Your task to perform on an android device: turn off notifications in google photos Image 0: 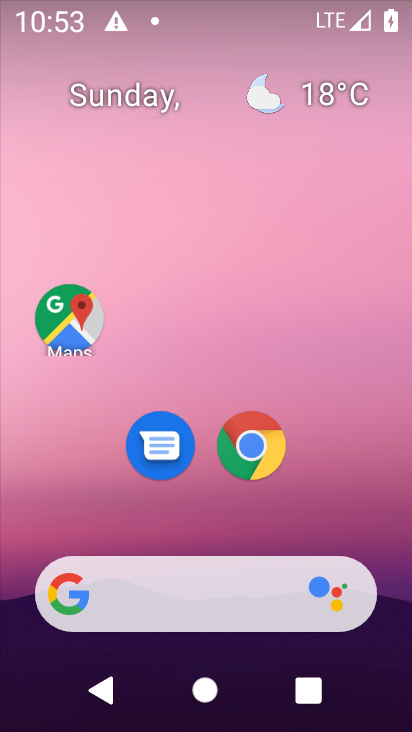
Step 0: drag from (240, 576) to (127, 467)
Your task to perform on an android device: turn off notifications in google photos Image 1: 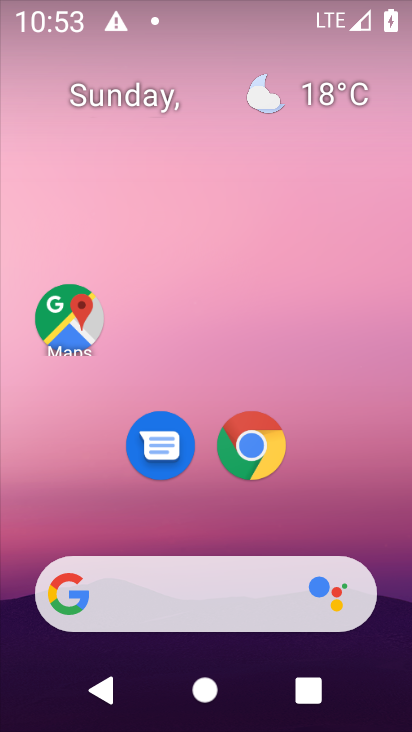
Step 1: drag from (239, 70) to (0, 377)
Your task to perform on an android device: turn off notifications in google photos Image 2: 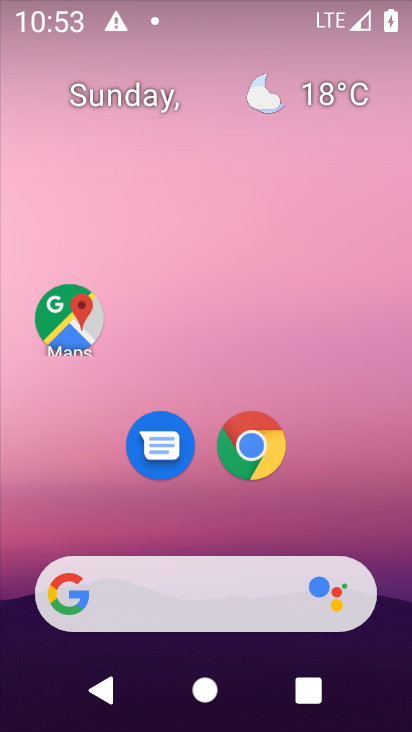
Step 2: drag from (215, 596) to (140, 32)
Your task to perform on an android device: turn off notifications in google photos Image 3: 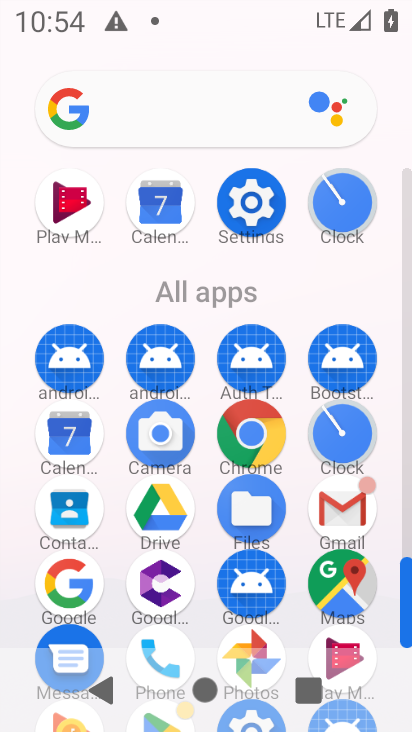
Step 3: click (254, 631)
Your task to perform on an android device: turn off notifications in google photos Image 4: 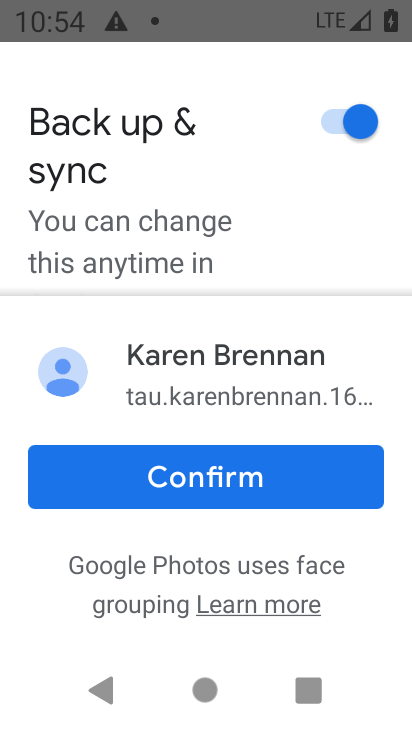
Step 4: click (201, 477)
Your task to perform on an android device: turn off notifications in google photos Image 5: 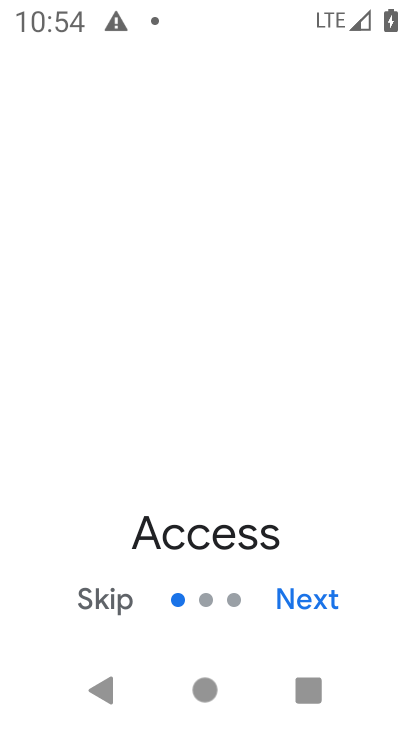
Step 5: click (88, 598)
Your task to perform on an android device: turn off notifications in google photos Image 6: 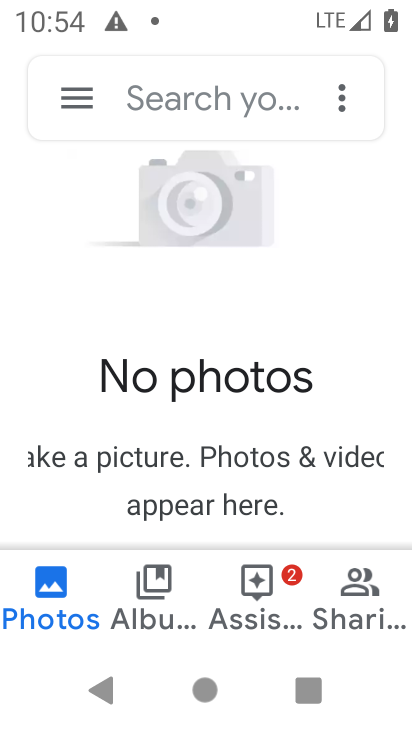
Step 6: click (88, 598)
Your task to perform on an android device: turn off notifications in google photos Image 7: 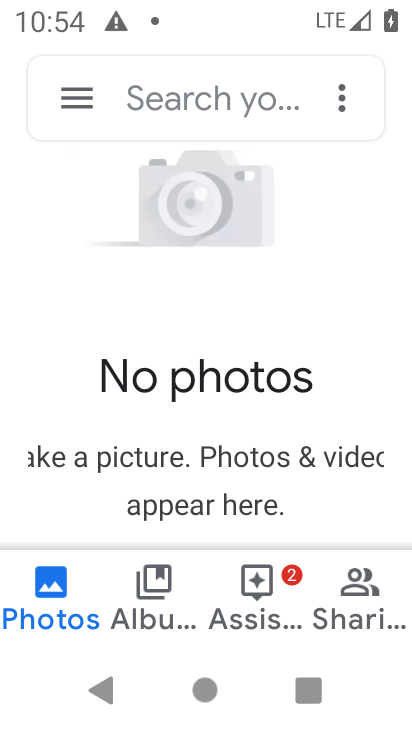
Step 7: click (89, 104)
Your task to perform on an android device: turn off notifications in google photos Image 8: 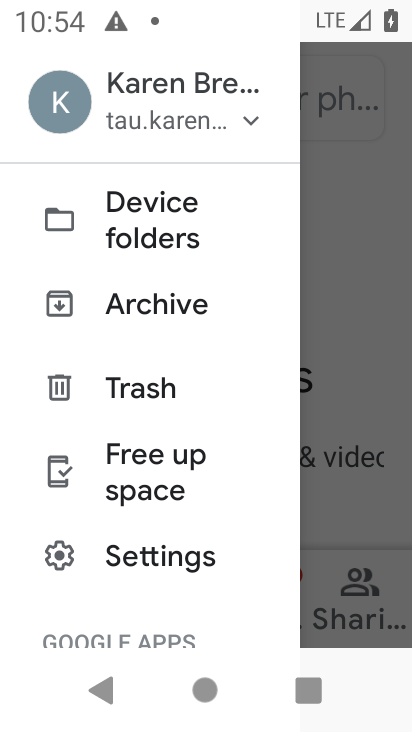
Step 8: click (129, 568)
Your task to perform on an android device: turn off notifications in google photos Image 9: 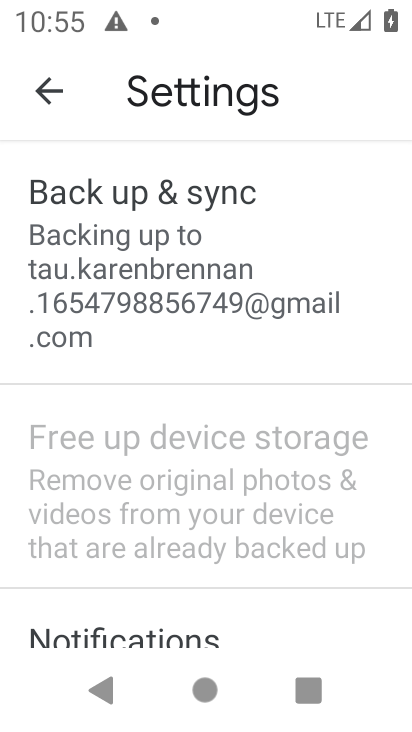
Step 9: click (132, 595)
Your task to perform on an android device: turn off notifications in google photos Image 10: 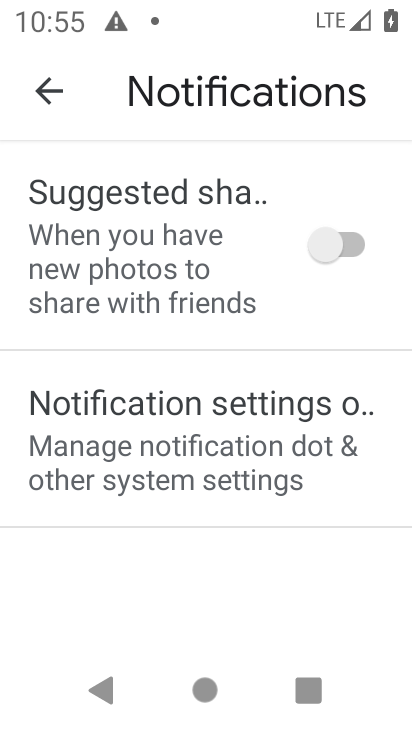
Step 10: click (186, 437)
Your task to perform on an android device: turn off notifications in google photos Image 11: 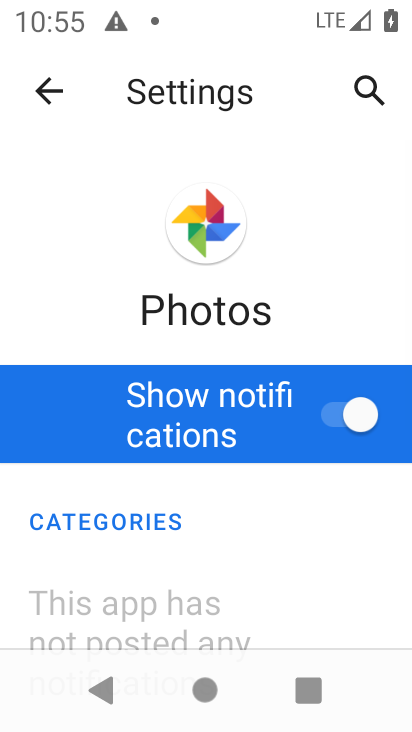
Step 11: click (343, 400)
Your task to perform on an android device: turn off notifications in google photos Image 12: 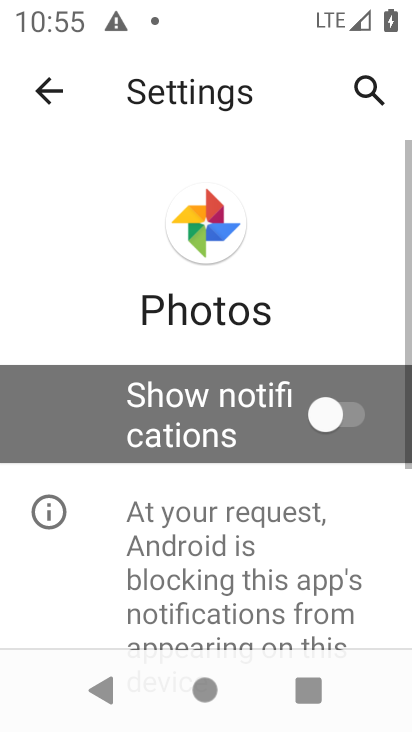
Step 12: task complete